Your task to perform on an android device: make emails show in primary in the gmail app Image 0: 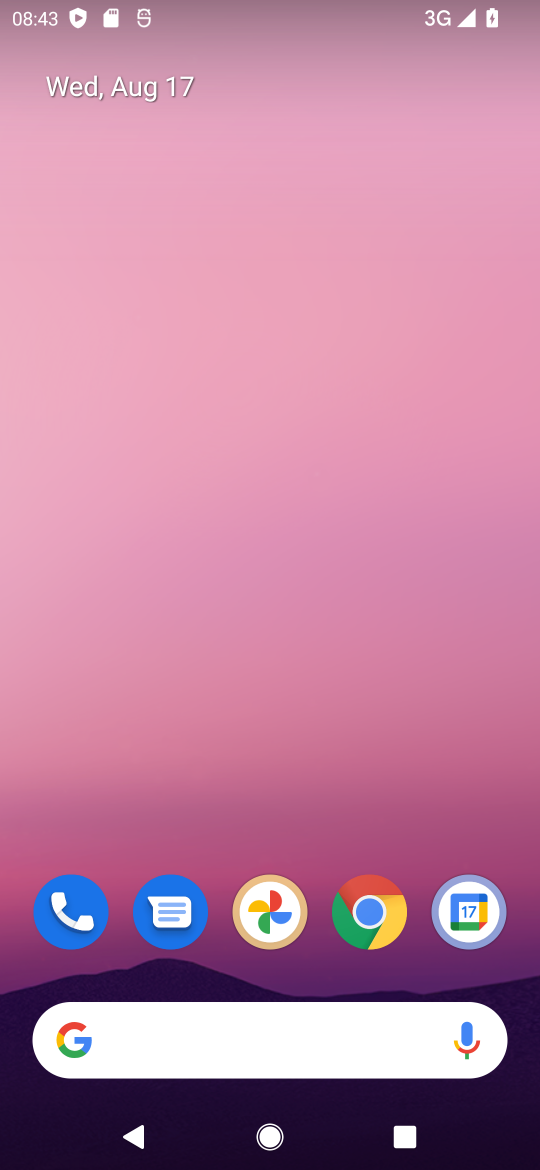
Step 0: drag from (288, 892) to (185, 396)
Your task to perform on an android device: make emails show in primary in the gmail app Image 1: 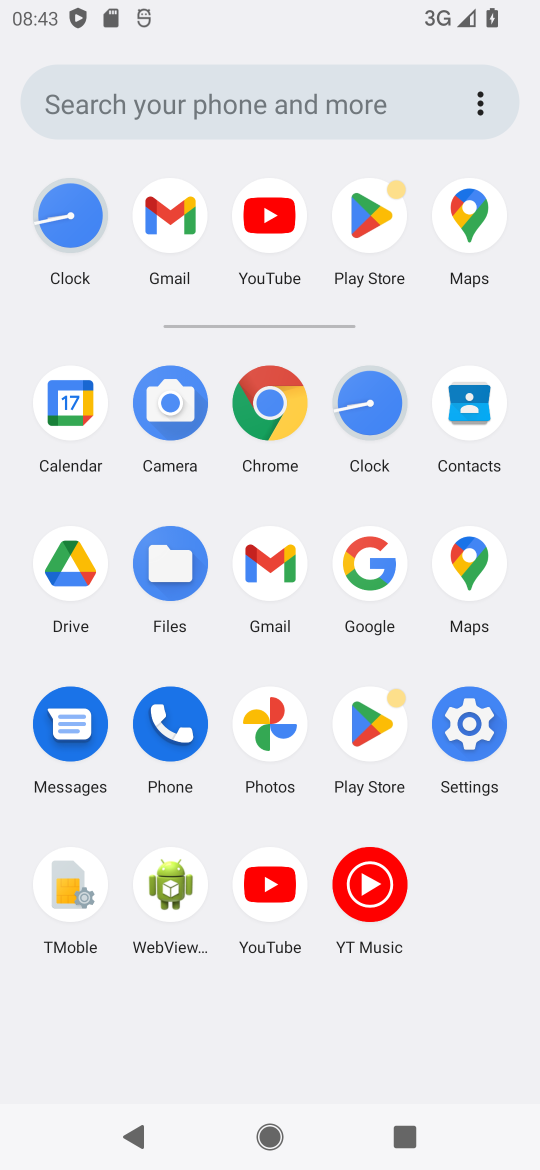
Step 1: click (272, 570)
Your task to perform on an android device: make emails show in primary in the gmail app Image 2: 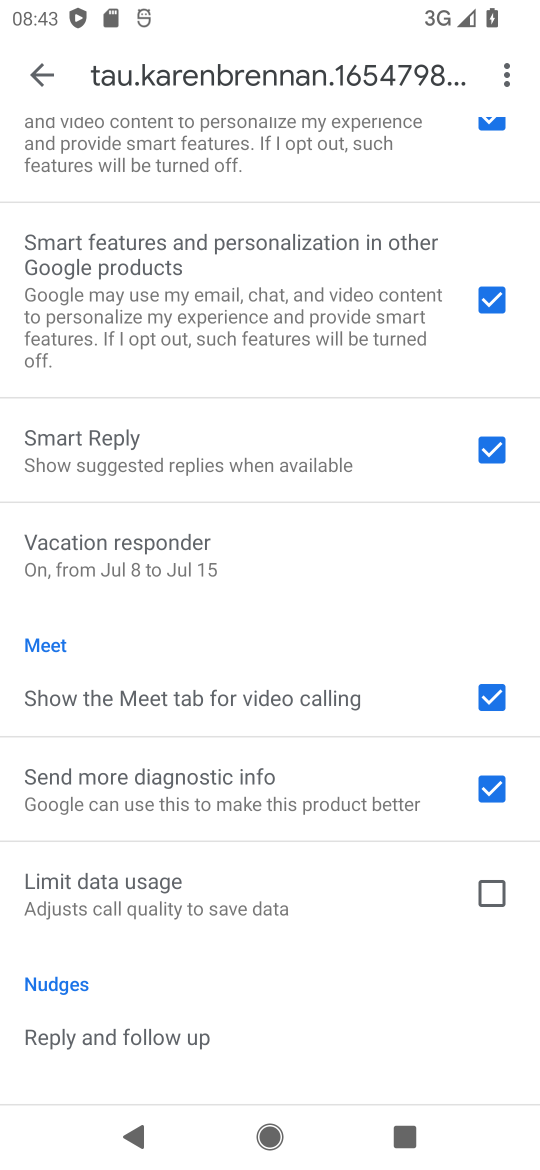
Step 2: click (39, 72)
Your task to perform on an android device: make emails show in primary in the gmail app Image 3: 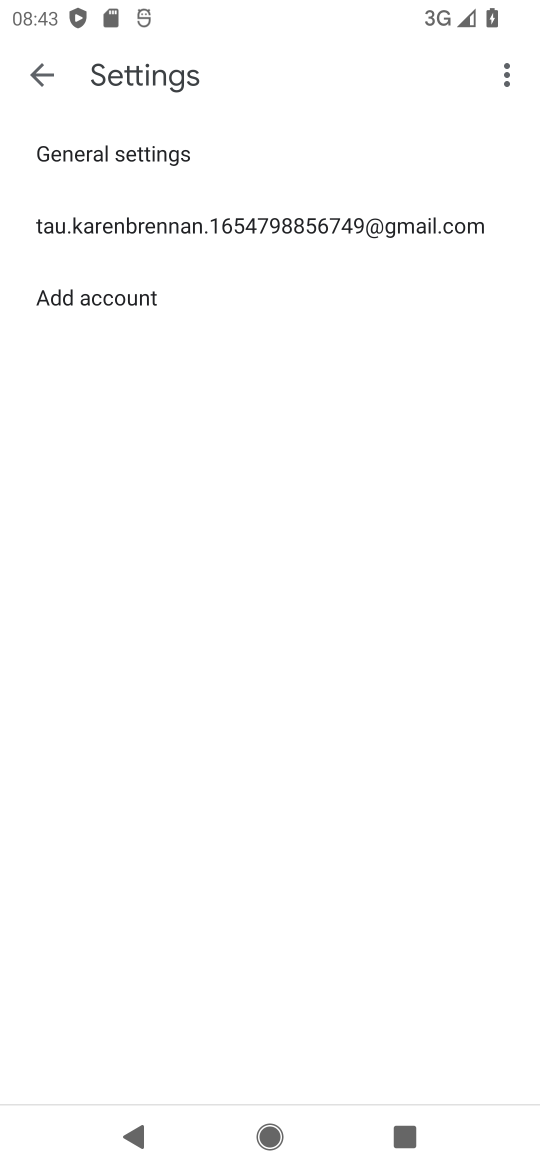
Step 3: click (127, 225)
Your task to perform on an android device: make emails show in primary in the gmail app Image 4: 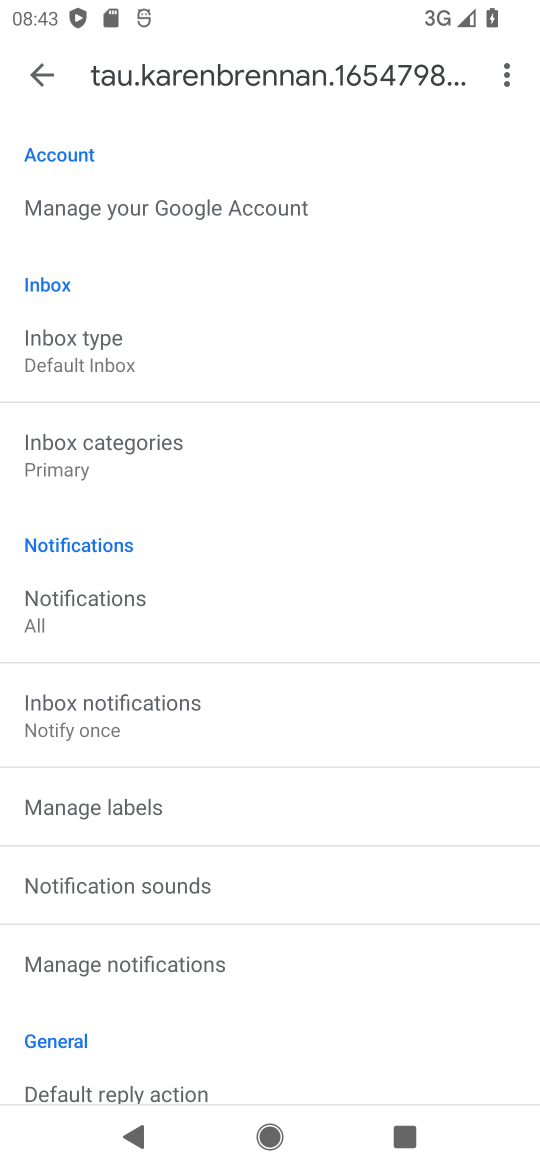
Step 4: task complete